Your task to perform on an android device: toggle pop-ups in chrome Image 0: 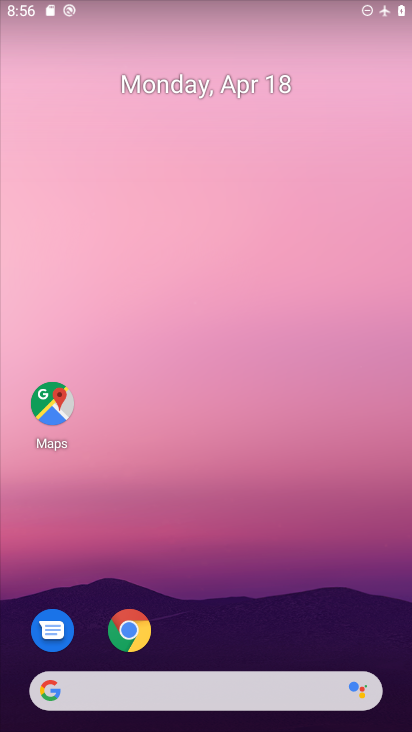
Step 0: click (121, 642)
Your task to perform on an android device: toggle pop-ups in chrome Image 1: 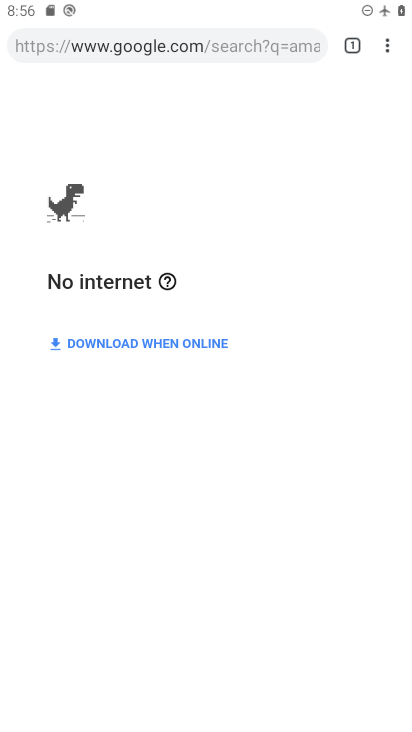
Step 1: click (392, 46)
Your task to perform on an android device: toggle pop-ups in chrome Image 2: 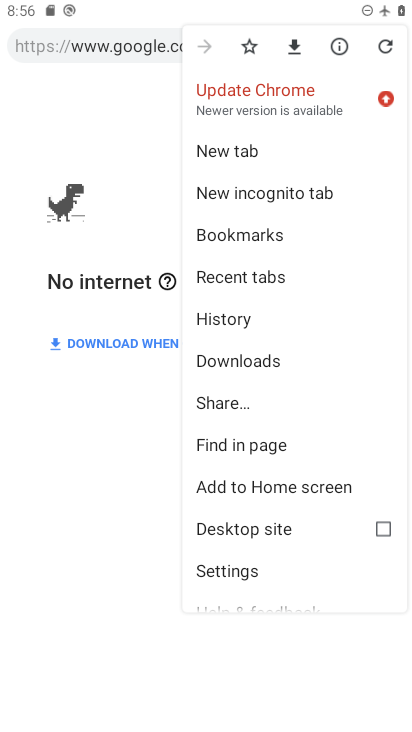
Step 2: click (230, 568)
Your task to perform on an android device: toggle pop-ups in chrome Image 3: 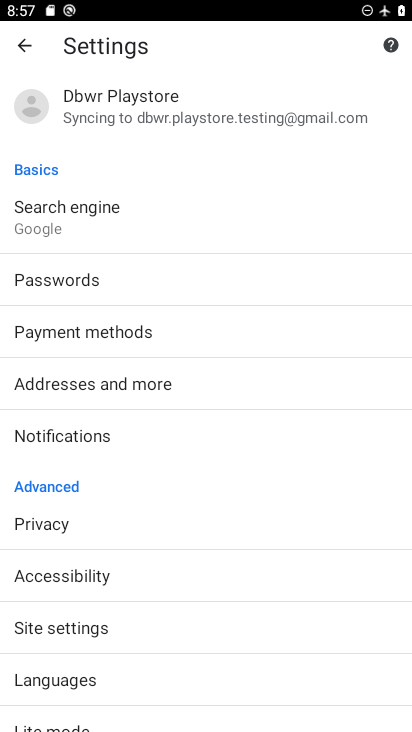
Step 3: click (72, 625)
Your task to perform on an android device: toggle pop-ups in chrome Image 4: 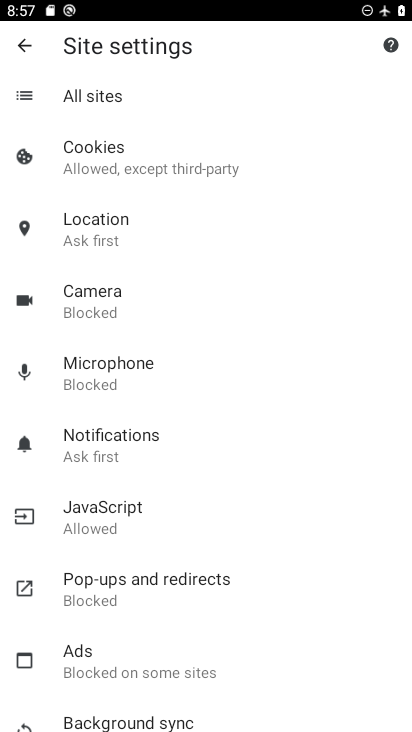
Step 4: click (123, 581)
Your task to perform on an android device: toggle pop-ups in chrome Image 5: 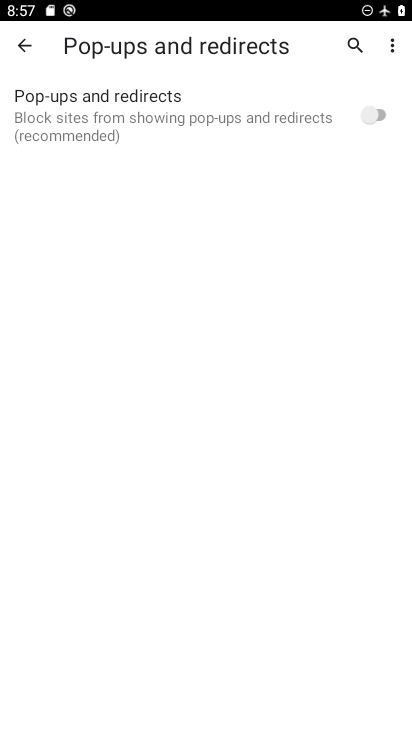
Step 5: click (378, 114)
Your task to perform on an android device: toggle pop-ups in chrome Image 6: 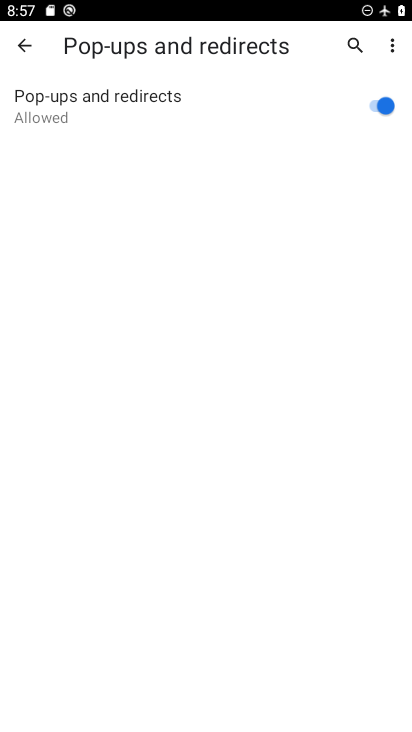
Step 6: task complete